Your task to perform on an android device: Search for seafood restaurants on Google Maps Image 0: 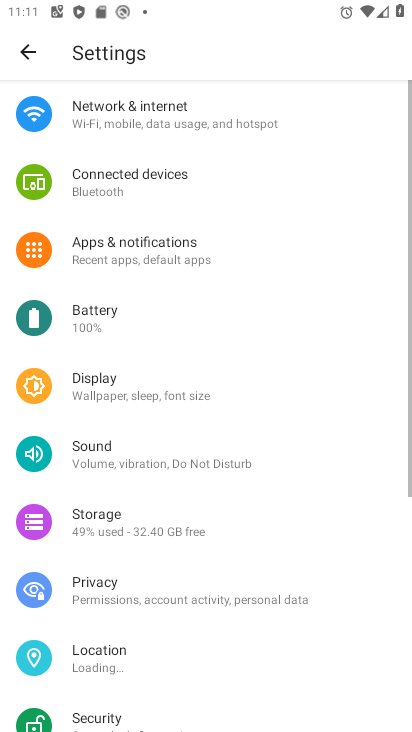
Step 0: press home button
Your task to perform on an android device: Search for seafood restaurants on Google Maps Image 1: 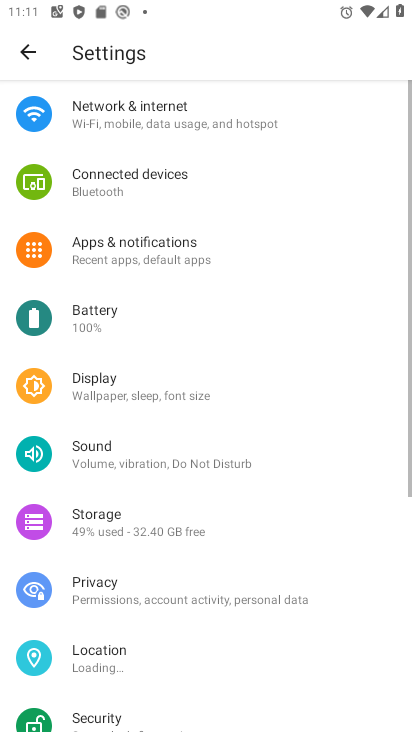
Step 1: press home button
Your task to perform on an android device: Search for seafood restaurants on Google Maps Image 2: 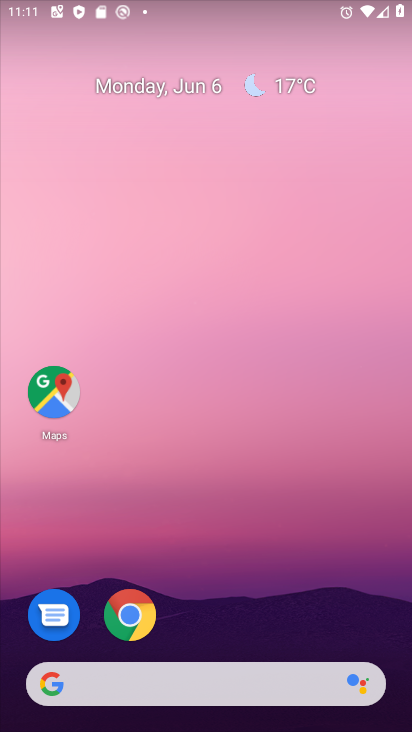
Step 2: click (51, 386)
Your task to perform on an android device: Search for seafood restaurants on Google Maps Image 3: 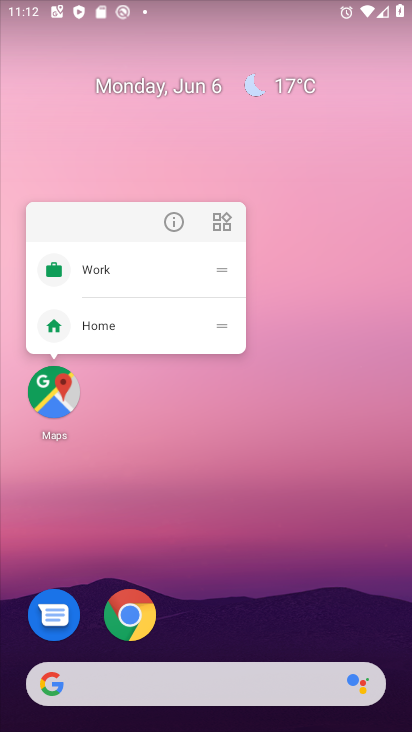
Step 3: click (60, 387)
Your task to perform on an android device: Search for seafood restaurants on Google Maps Image 4: 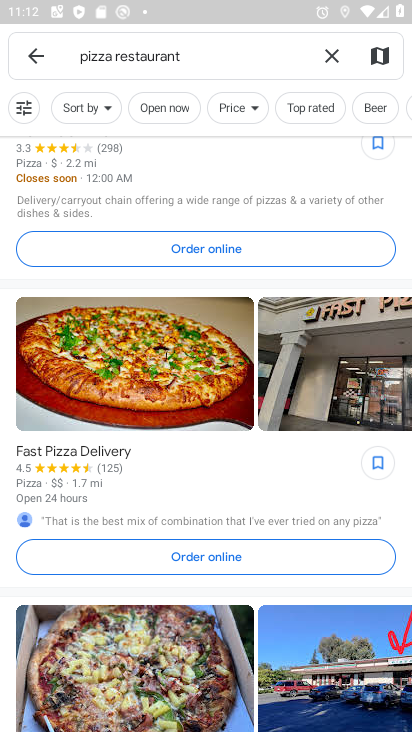
Step 4: click (329, 54)
Your task to perform on an android device: Search for seafood restaurants on Google Maps Image 5: 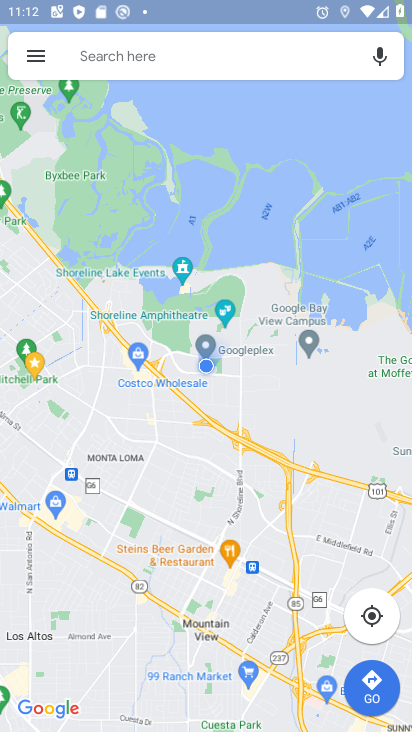
Step 5: click (112, 52)
Your task to perform on an android device: Search for seafood restaurants on Google Maps Image 6: 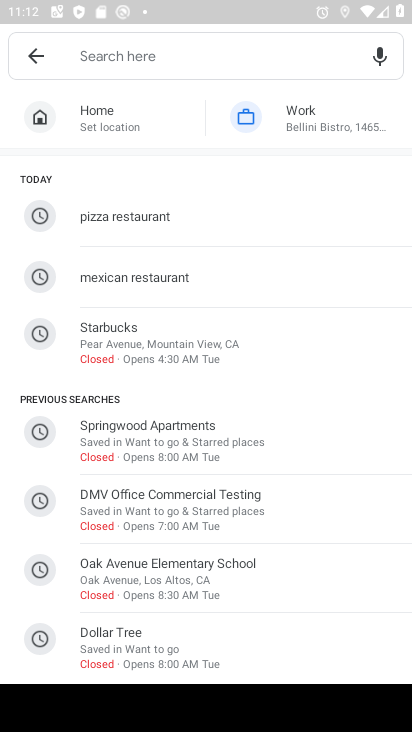
Step 6: type "seafood"
Your task to perform on an android device: Search for seafood restaurants on Google Maps Image 7: 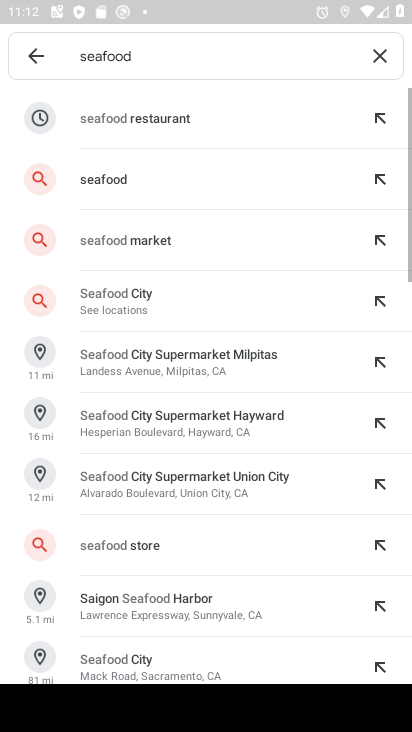
Step 7: click (152, 120)
Your task to perform on an android device: Search for seafood restaurants on Google Maps Image 8: 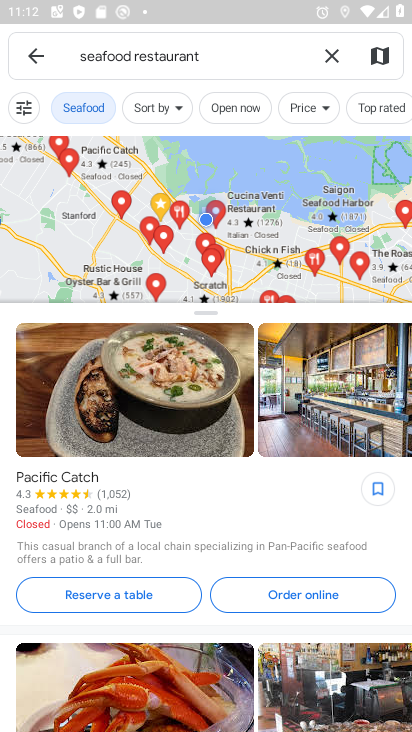
Step 8: task complete